Your task to perform on an android device: toggle notifications settings in the gmail app Image 0: 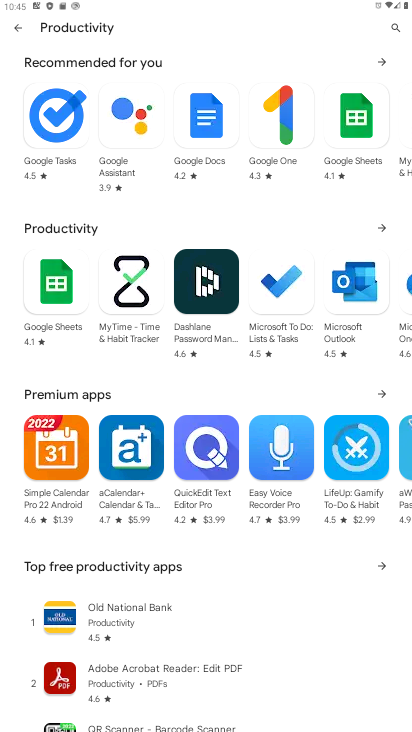
Step 0: press home button
Your task to perform on an android device: toggle notifications settings in the gmail app Image 1: 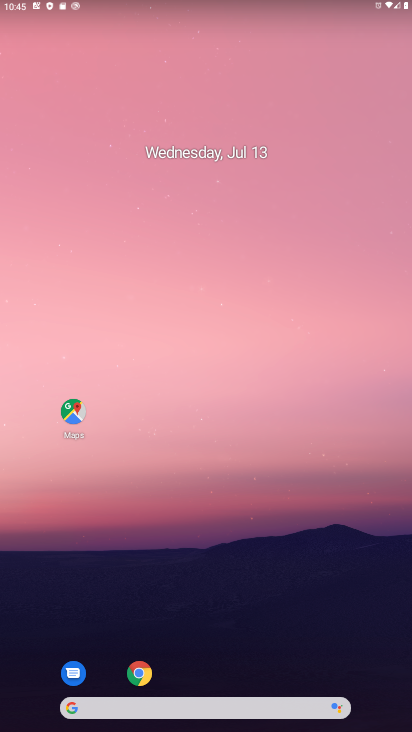
Step 1: drag from (193, 673) to (158, 107)
Your task to perform on an android device: toggle notifications settings in the gmail app Image 2: 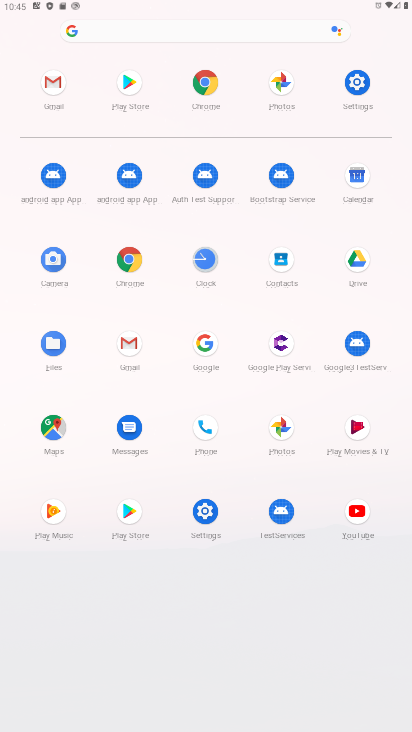
Step 2: click (58, 75)
Your task to perform on an android device: toggle notifications settings in the gmail app Image 3: 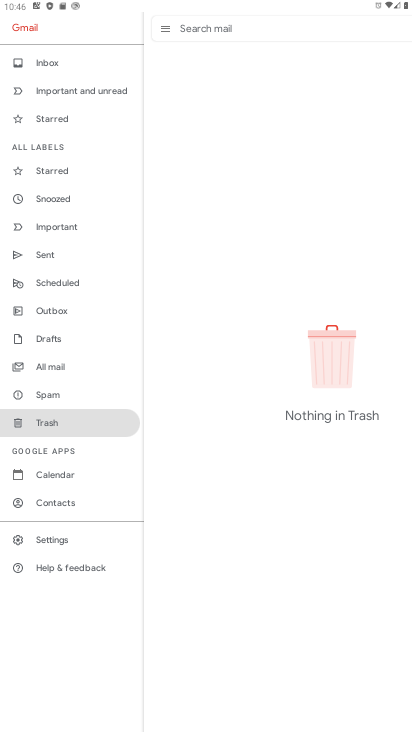
Step 3: click (84, 543)
Your task to perform on an android device: toggle notifications settings in the gmail app Image 4: 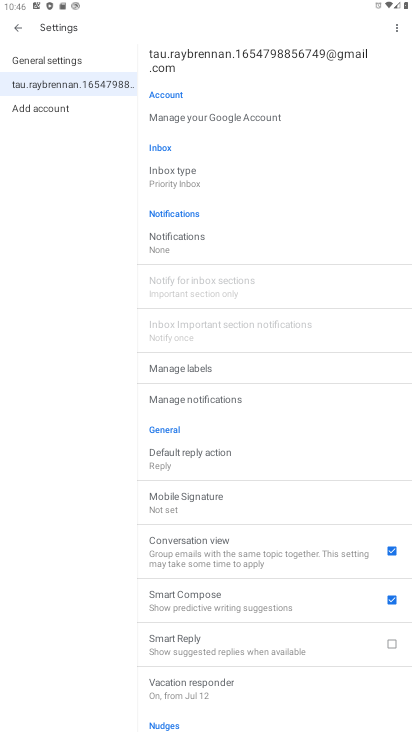
Step 4: click (208, 250)
Your task to perform on an android device: toggle notifications settings in the gmail app Image 5: 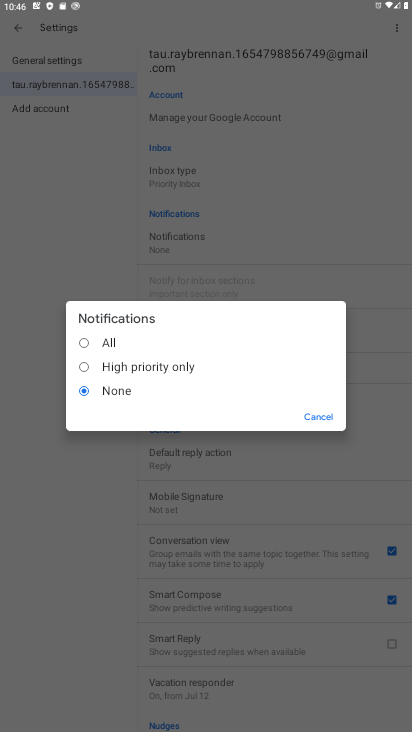
Step 5: click (199, 369)
Your task to perform on an android device: toggle notifications settings in the gmail app Image 6: 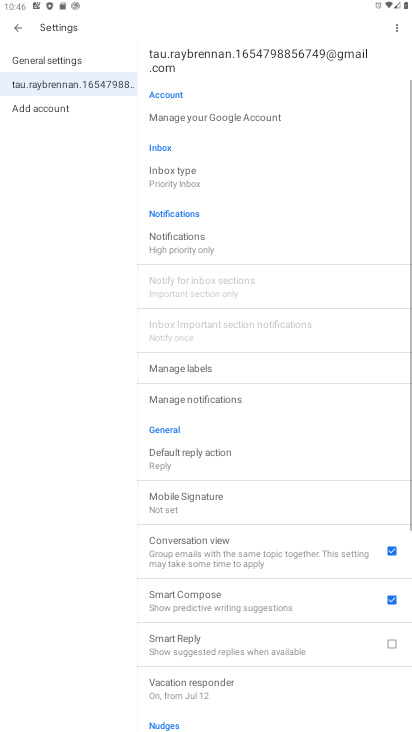
Step 6: task complete